Your task to perform on an android device: What is the capital of India? Image 0: 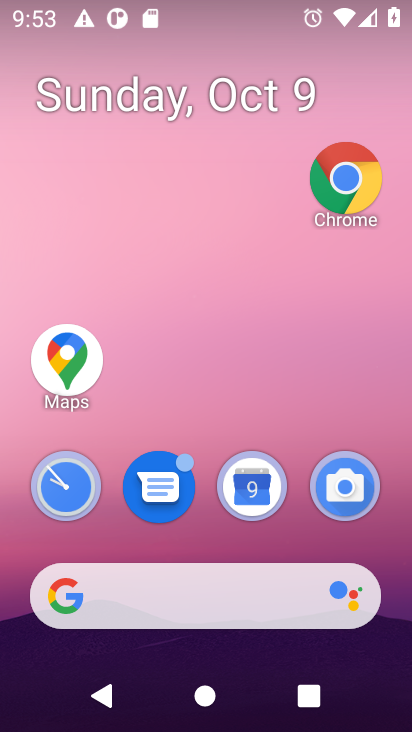
Step 0: drag from (234, 542) to (251, 0)
Your task to perform on an android device: What is the capital of India? Image 1: 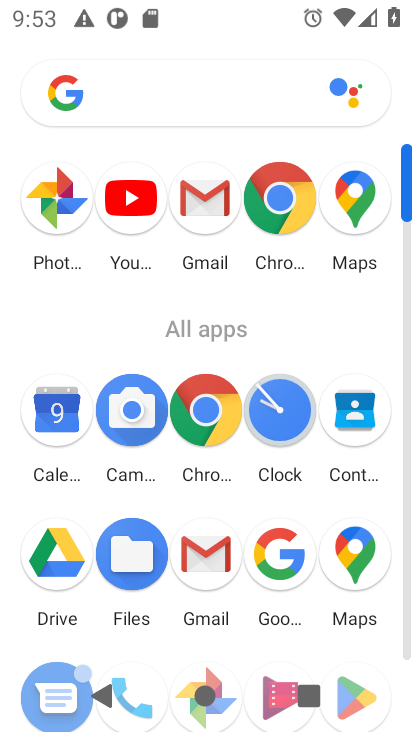
Step 1: click (299, 564)
Your task to perform on an android device: What is the capital of India? Image 2: 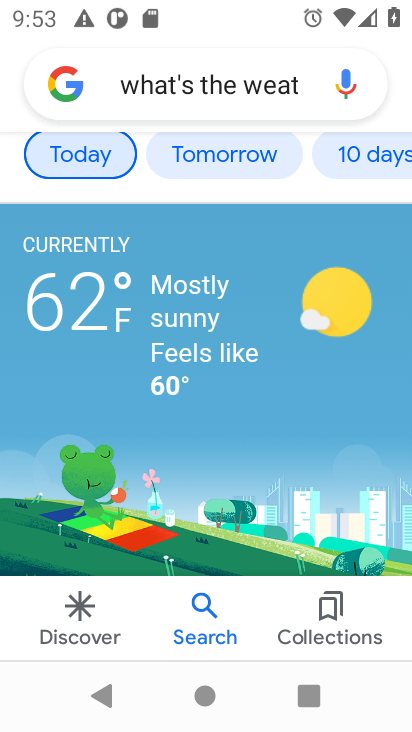
Step 2: click (237, 84)
Your task to perform on an android device: What is the capital of India? Image 3: 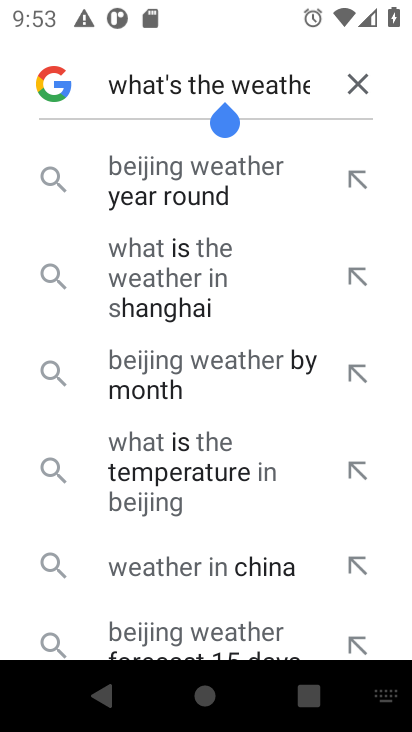
Step 3: click (368, 85)
Your task to perform on an android device: What is the capital of India? Image 4: 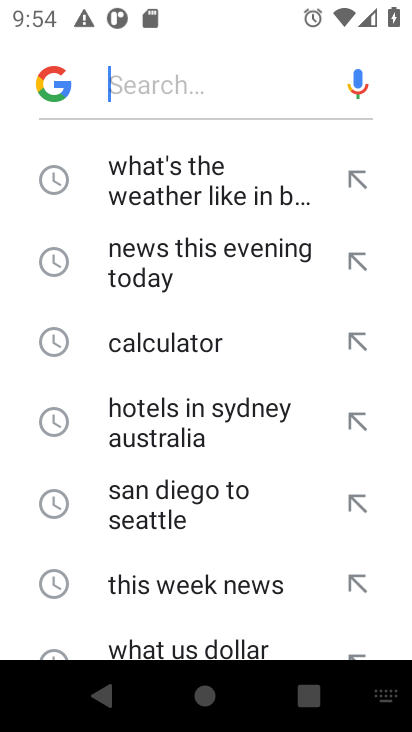
Step 4: type "capital of India"
Your task to perform on an android device: What is the capital of India? Image 5: 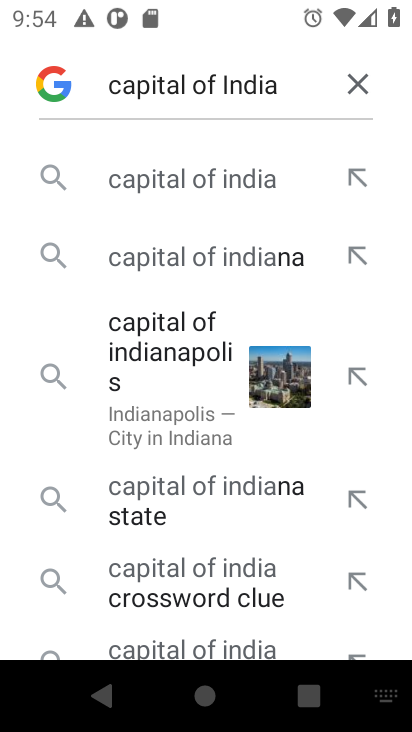
Step 5: click (256, 175)
Your task to perform on an android device: What is the capital of India? Image 6: 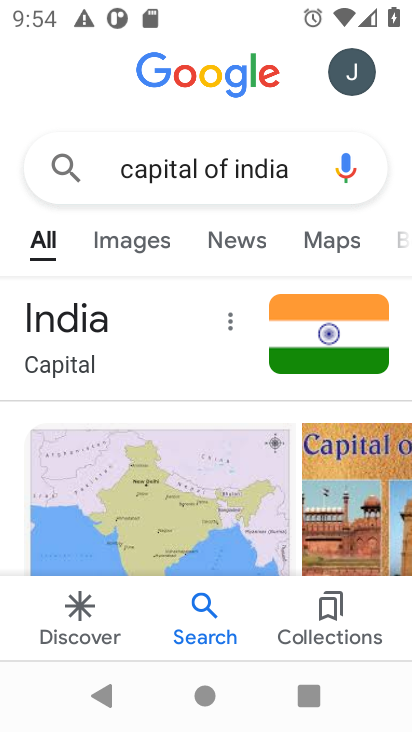
Step 6: task complete